Your task to perform on an android device: turn off picture-in-picture Image 0: 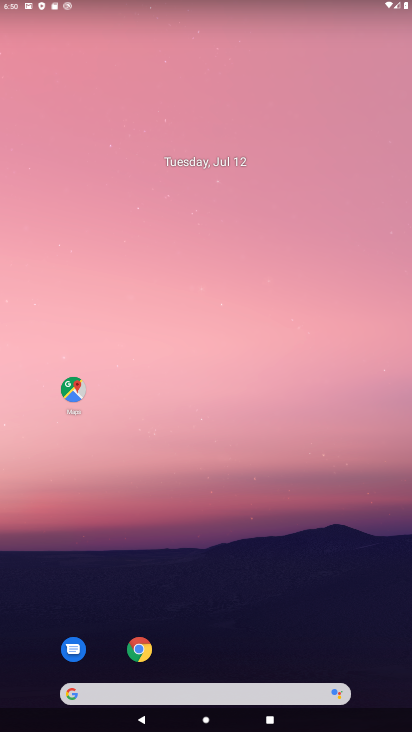
Step 0: drag from (193, 590) to (286, 105)
Your task to perform on an android device: turn off picture-in-picture Image 1: 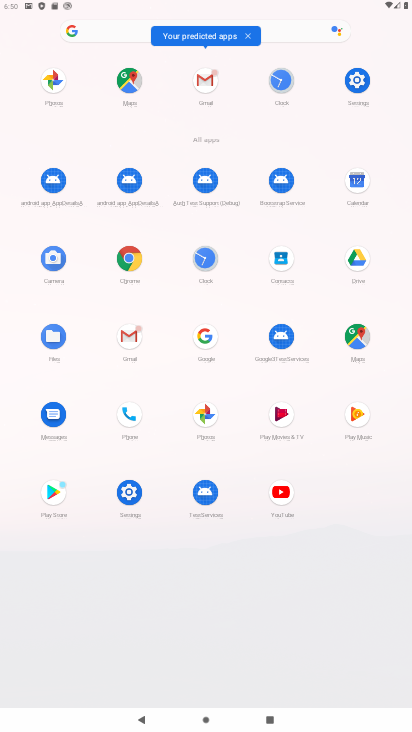
Step 1: click (131, 496)
Your task to perform on an android device: turn off picture-in-picture Image 2: 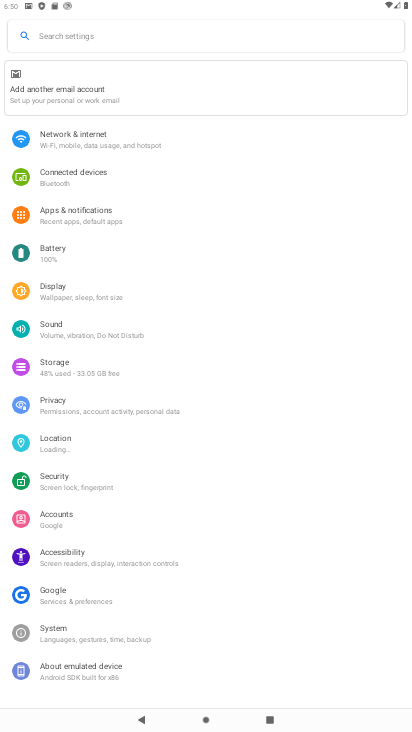
Step 2: click (66, 221)
Your task to perform on an android device: turn off picture-in-picture Image 3: 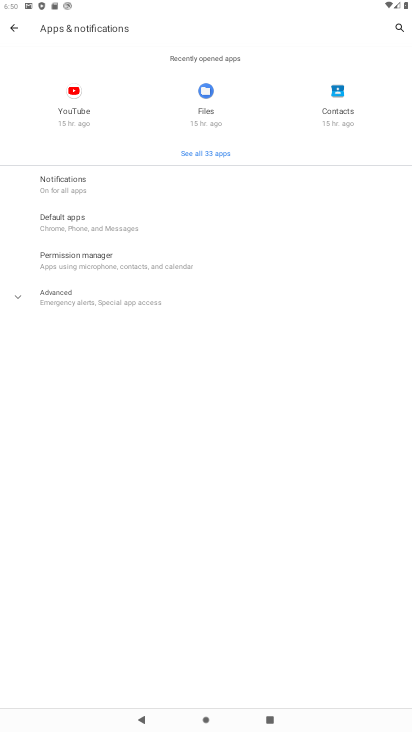
Step 3: click (53, 301)
Your task to perform on an android device: turn off picture-in-picture Image 4: 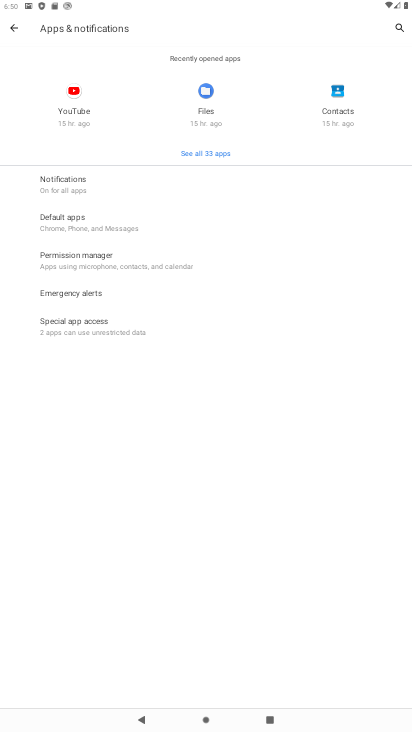
Step 4: click (55, 327)
Your task to perform on an android device: turn off picture-in-picture Image 5: 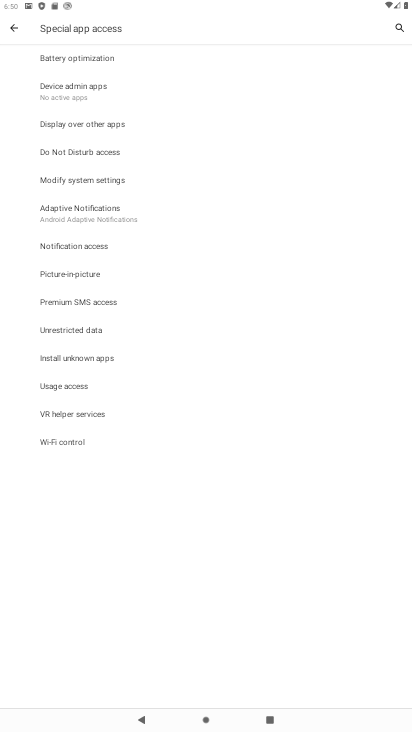
Step 5: click (90, 270)
Your task to perform on an android device: turn off picture-in-picture Image 6: 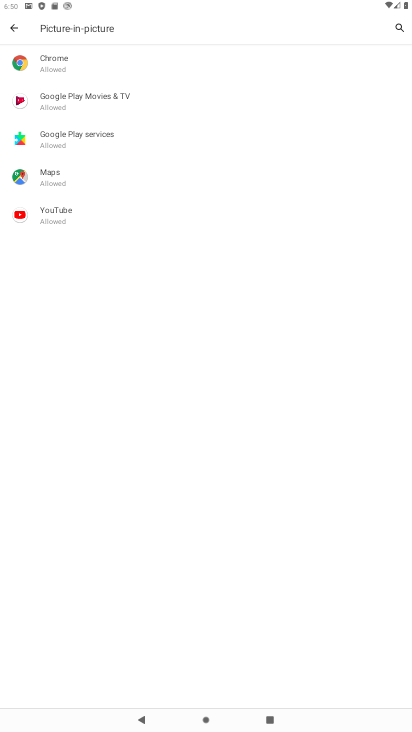
Step 6: click (44, 60)
Your task to perform on an android device: turn off picture-in-picture Image 7: 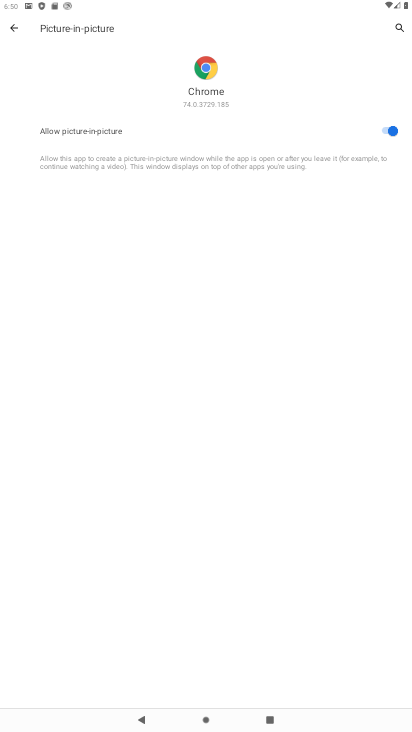
Step 7: click (388, 136)
Your task to perform on an android device: turn off picture-in-picture Image 8: 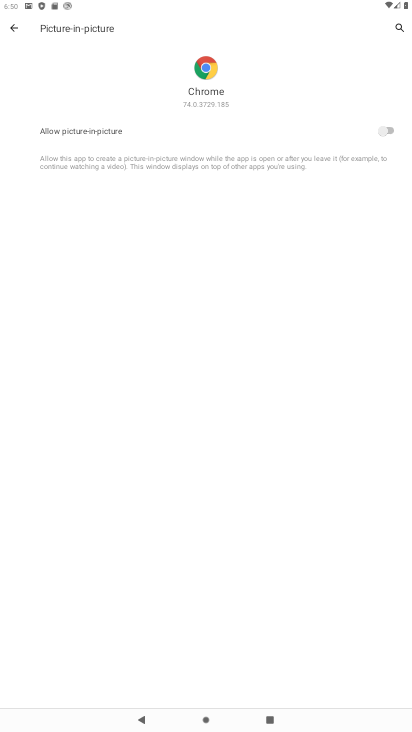
Step 8: task complete